Your task to perform on an android device: turn off airplane mode Image 0: 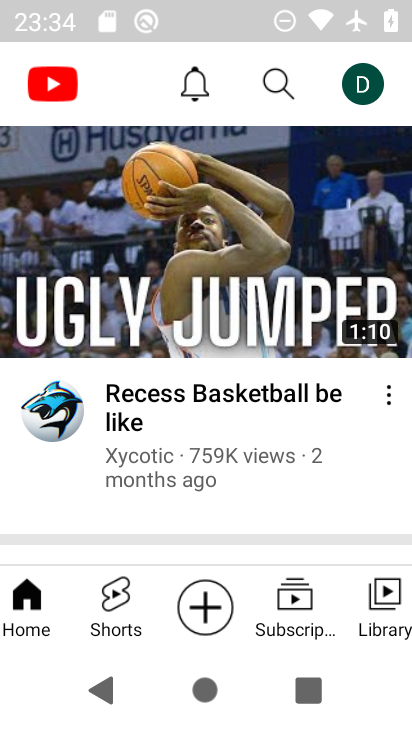
Step 0: press home button
Your task to perform on an android device: turn off airplane mode Image 1: 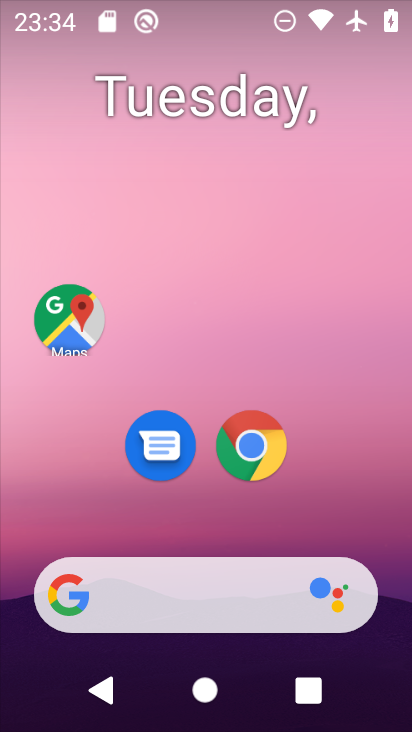
Step 1: drag from (214, 522) to (350, 0)
Your task to perform on an android device: turn off airplane mode Image 2: 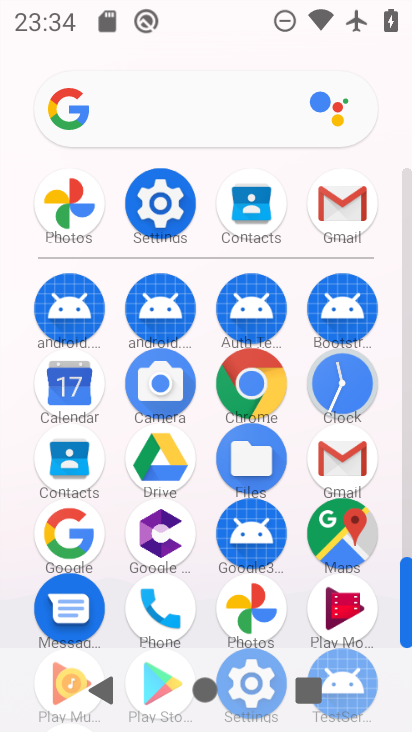
Step 2: click (158, 179)
Your task to perform on an android device: turn off airplane mode Image 3: 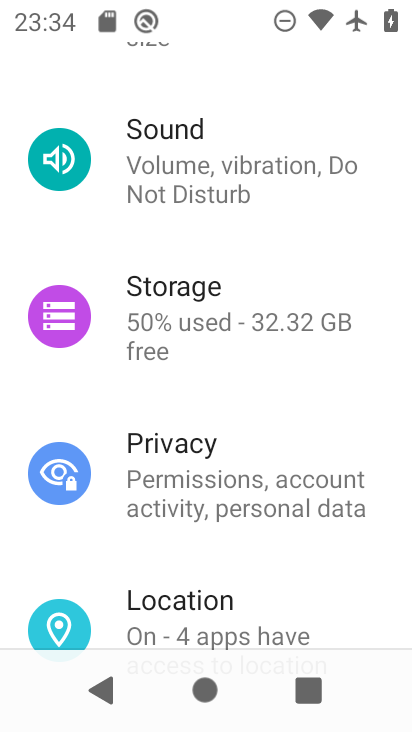
Step 3: drag from (213, 229) to (215, 416)
Your task to perform on an android device: turn off airplane mode Image 4: 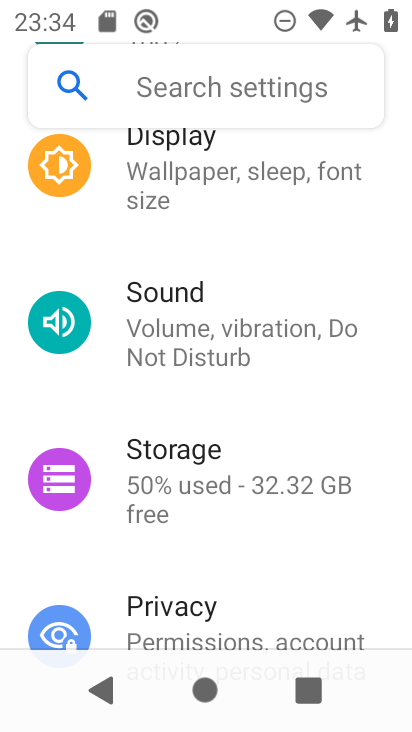
Step 4: drag from (232, 240) to (246, 477)
Your task to perform on an android device: turn off airplane mode Image 5: 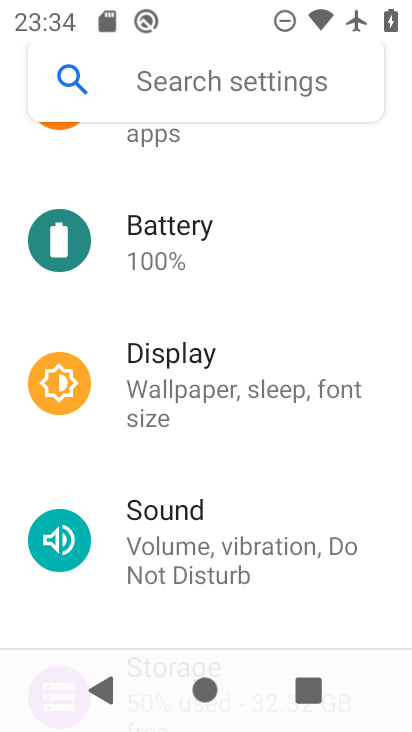
Step 5: drag from (272, 305) to (242, 520)
Your task to perform on an android device: turn off airplane mode Image 6: 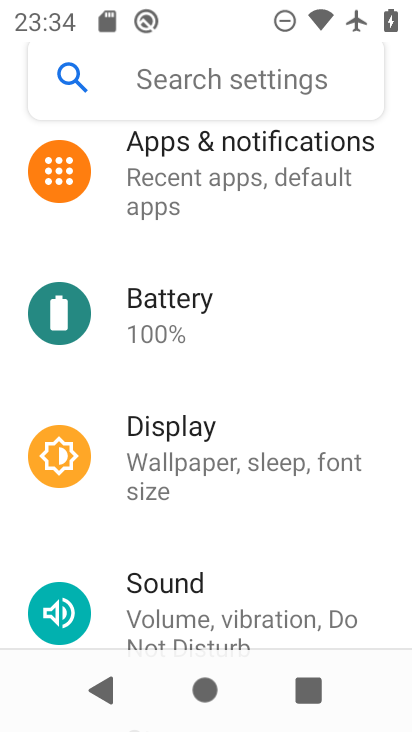
Step 6: drag from (339, 300) to (315, 473)
Your task to perform on an android device: turn off airplane mode Image 7: 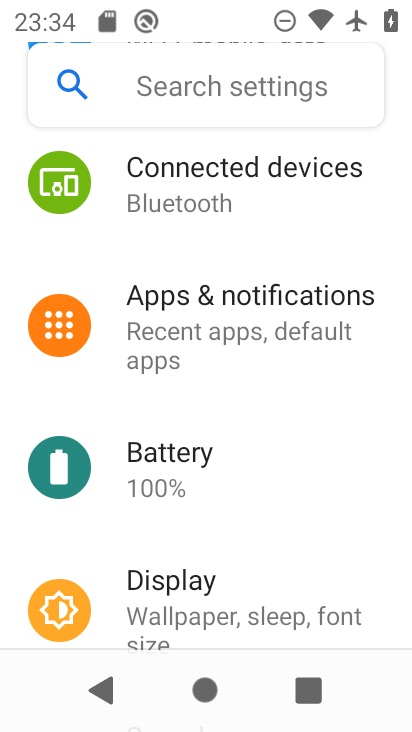
Step 7: drag from (280, 237) to (246, 510)
Your task to perform on an android device: turn off airplane mode Image 8: 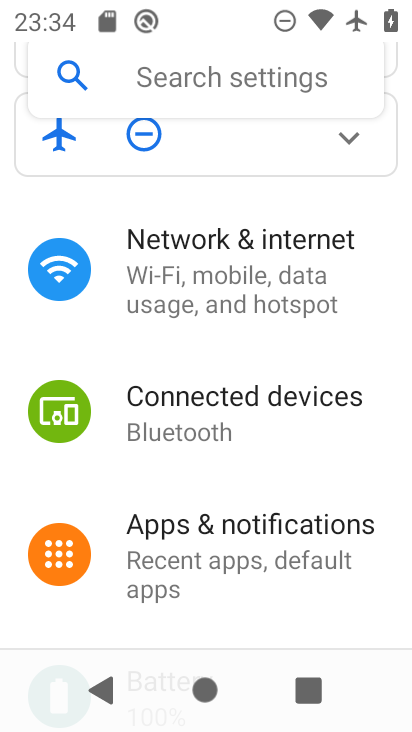
Step 8: click (237, 288)
Your task to perform on an android device: turn off airplane mode Image 9: 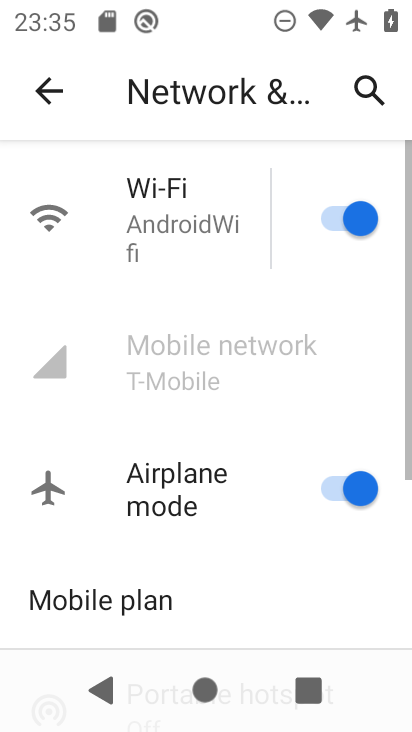
Step 9: click (326, 492)
Your task to perform on an android device: turn off airplane mode Image 10: 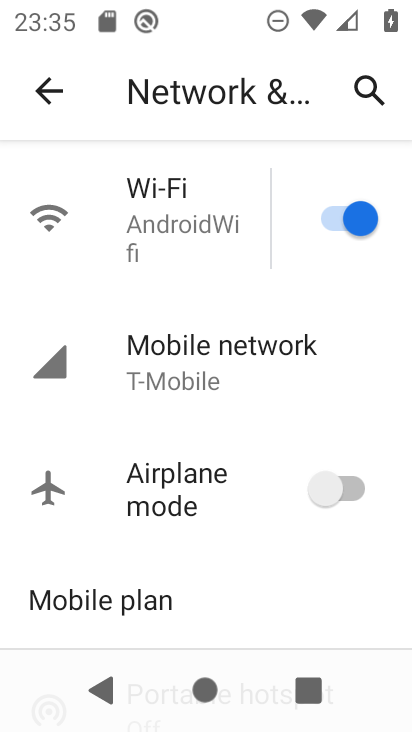
Step 10: task complete